Your task to perform on an android device: turn on sleep mode Image 0: 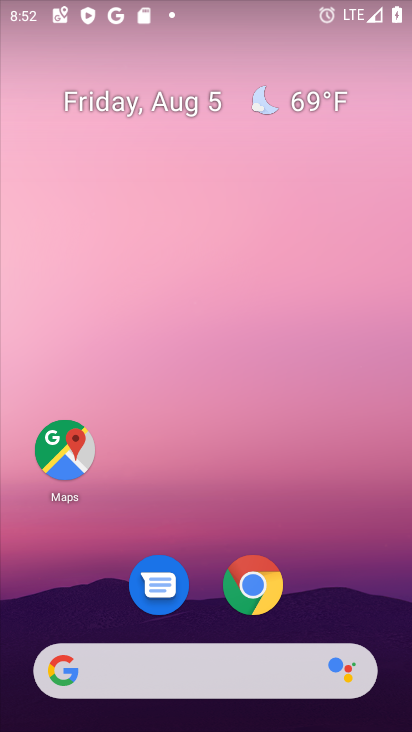
Step 0: drag from (268, 493) to (361, 8)
Your task to perform on an android device: turn on sleep mode Image 1: 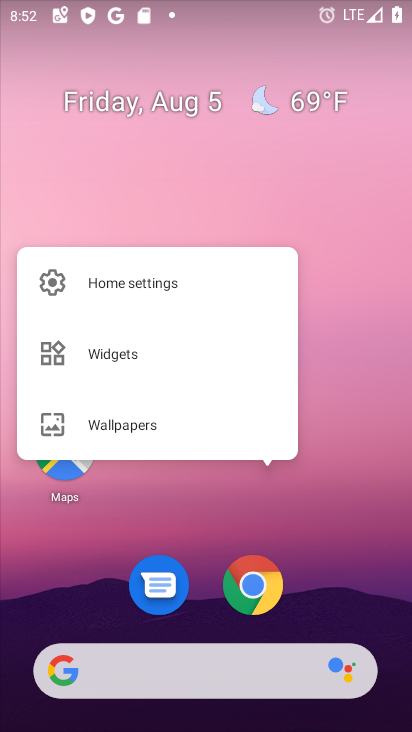
Step 1: click (358, 308)
Your task to perform on an android device: turn on sleep mode Image 2: 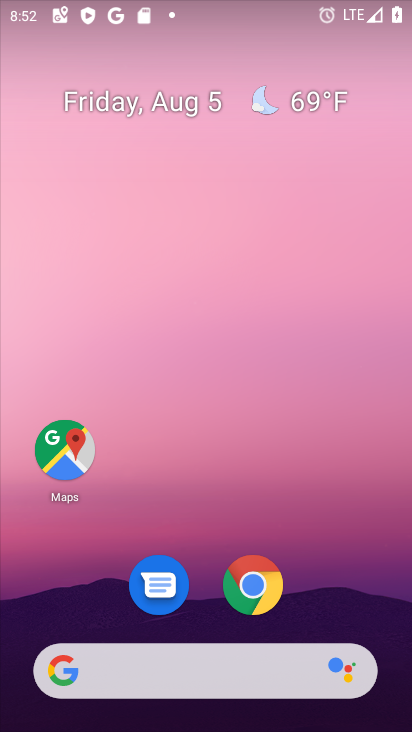
Step 2: drag from (347, 586) to (372, 7)
Your task to perform on an android device: turn on sleep mode Image 3: 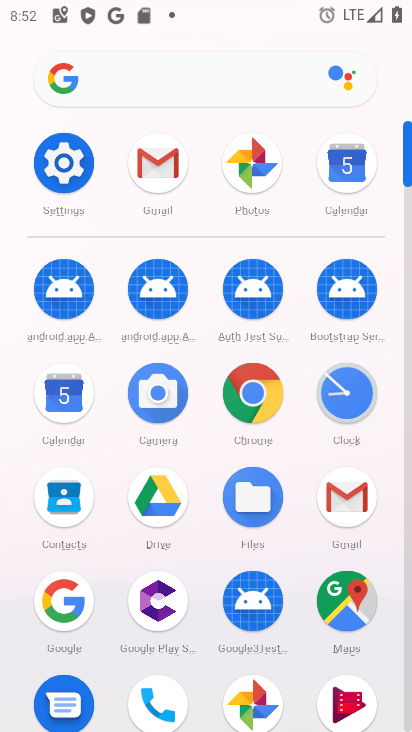
Step 3: click (71, 159)
Your task to perform on an android device: turn on sleep mode Image 4: 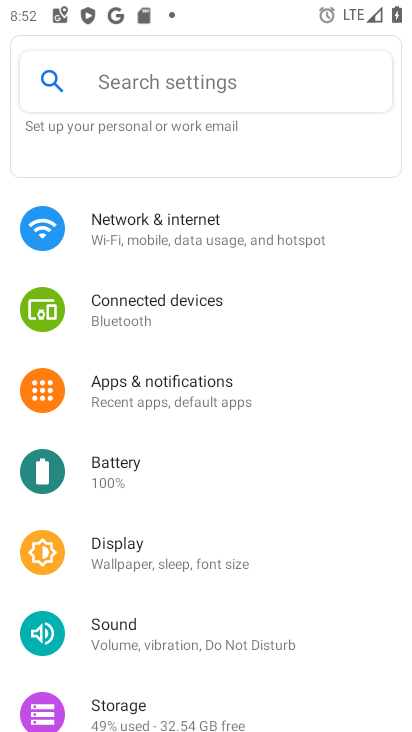
Step 4: click (198, 555)
Your task to perform on an android device: turn on sleep mode Image 5: 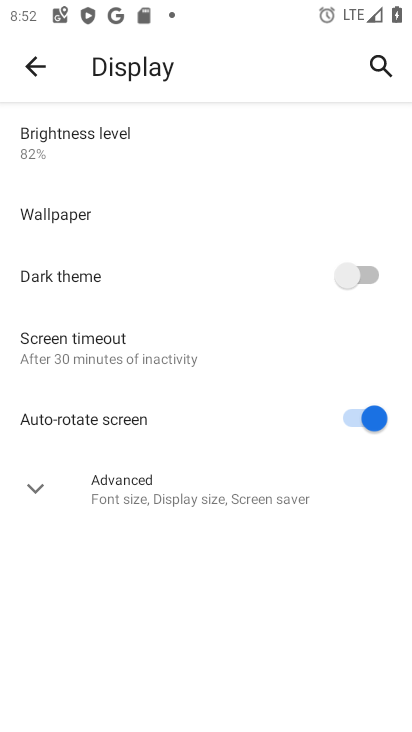
Step 5: click (36, 484)
Your task to perform on an android device: turn on sleep mode Image 6: 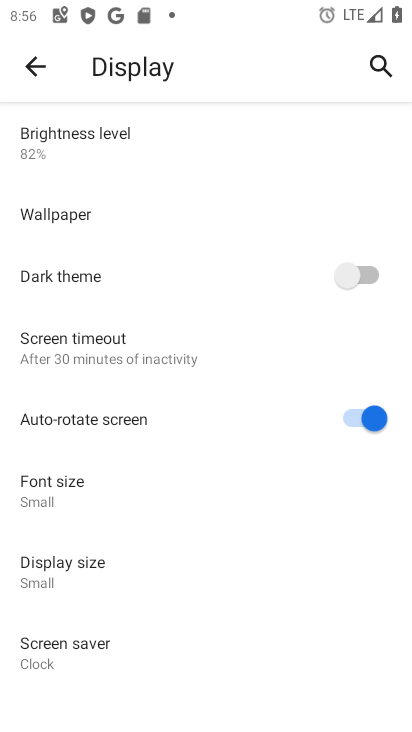
Step 6: task complete